Your task to perform on an android device: snooze an email in the gmail app Image 0: 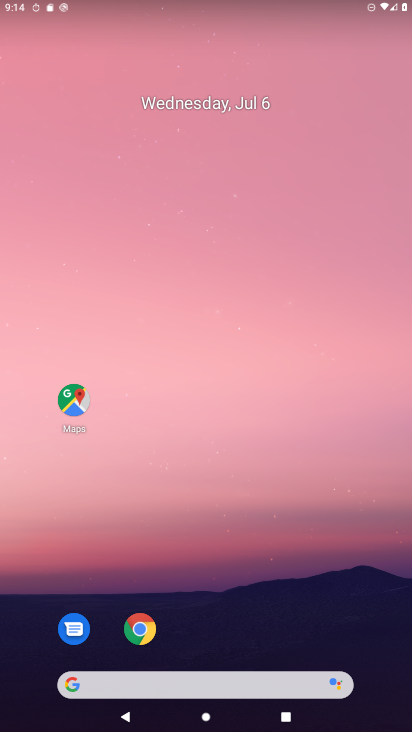
Step 0: drag from (233, 696) to (229, 589)
Your task to perform on an android device: snooze an email in the gmail app Image 1: 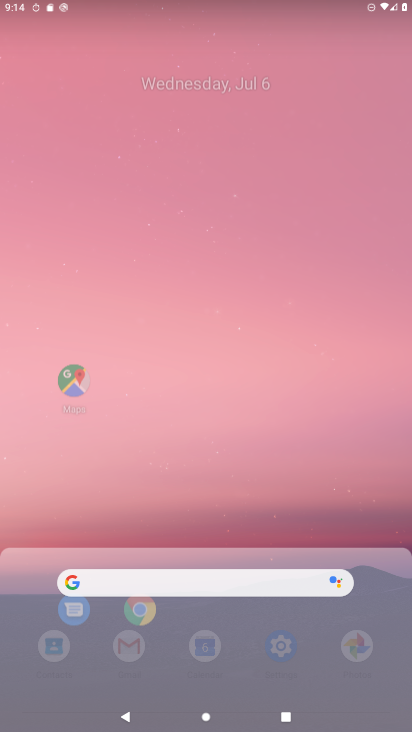
Step 1: click (200, 168)
Your task to perform on an android device: snooze an email in the gmail app Image 2: 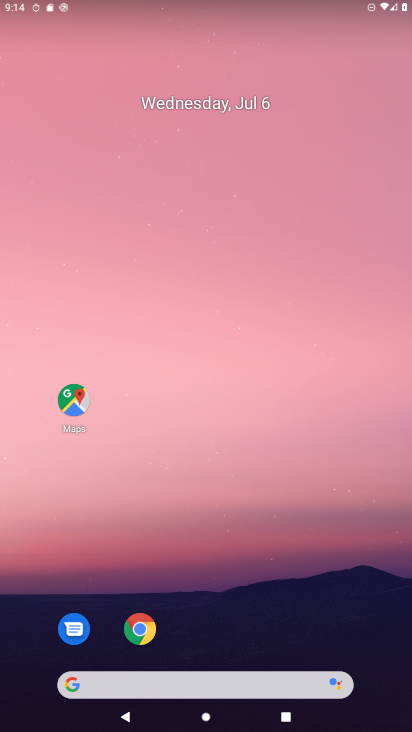
Step 2: drag from (238, 726) to (225, 84)
Your task to perform on an android device: snooze an email in the gmail app Image 3: 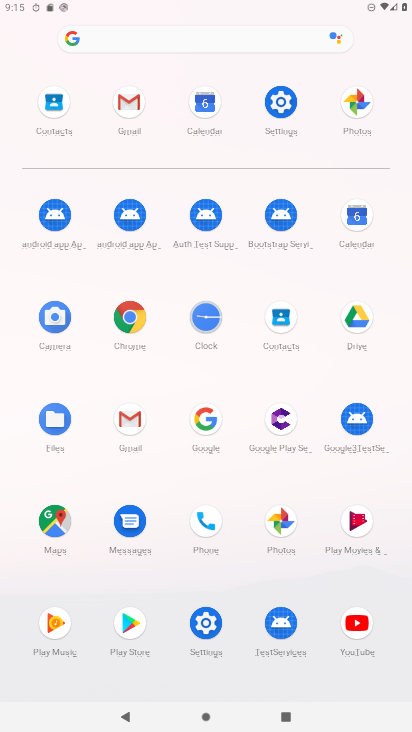
Step 3: click (131, 415)
Your task to perform on an android device: snooze an email in the gmail app Image 4: 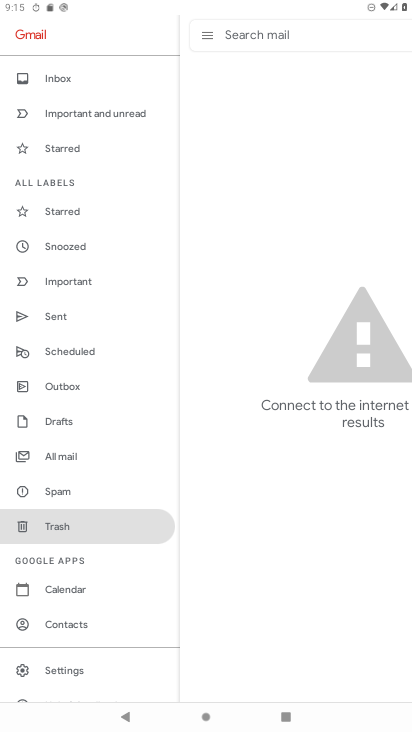
Step 4: click (66, 79)
Your task to perform on an android device: snooze an email in the gmail app Image 5: 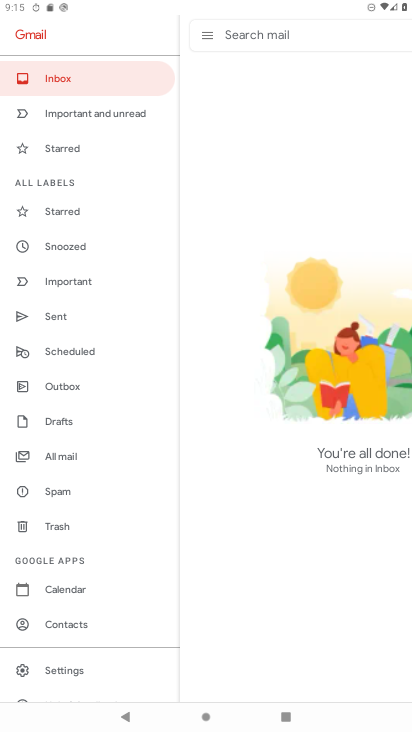
Step 5: task complete